Your task to perform on an android device: Go to Amazon Image 0: 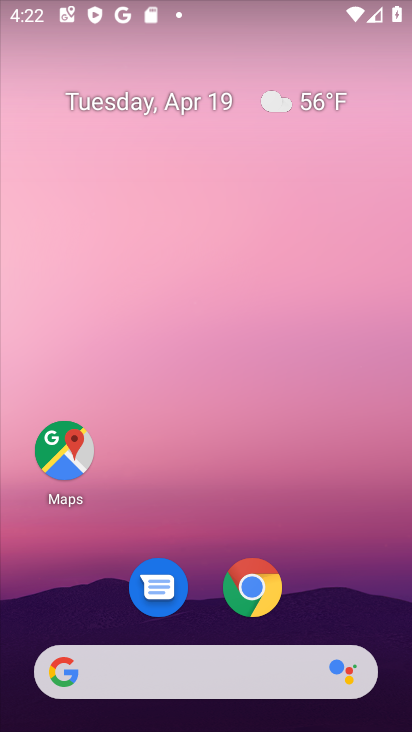
Step 0: click (251, 582)
Your task to perform on an android device: Go to Amazon Image 1: 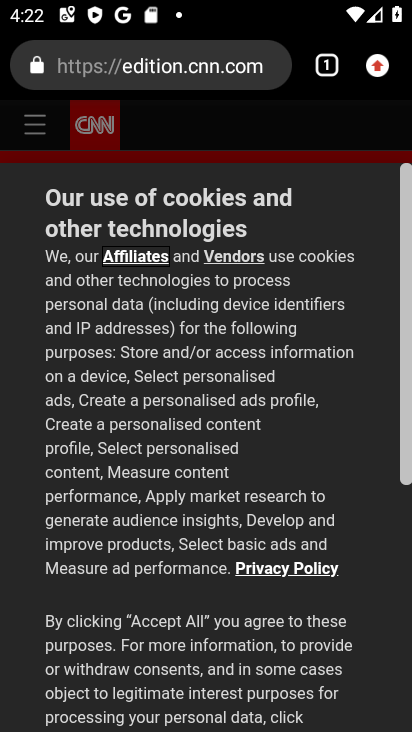
Step 1: click (327, 66)
Your task to perform on an android device: Go to Amazon Image 2: 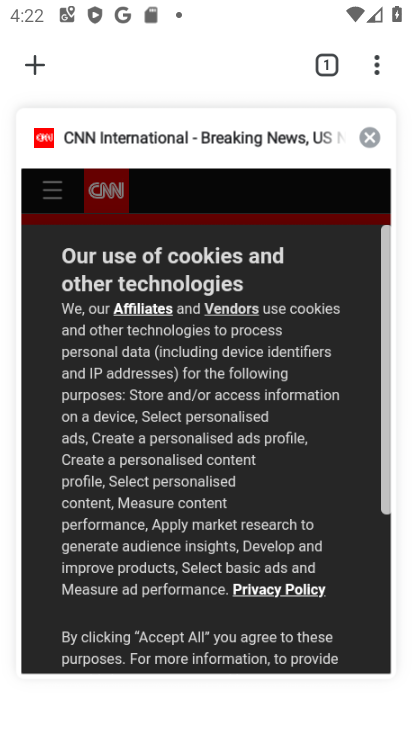
Step 2: click (35, 66)
Your task to perform on an android device: Go to Amazon Image 3: 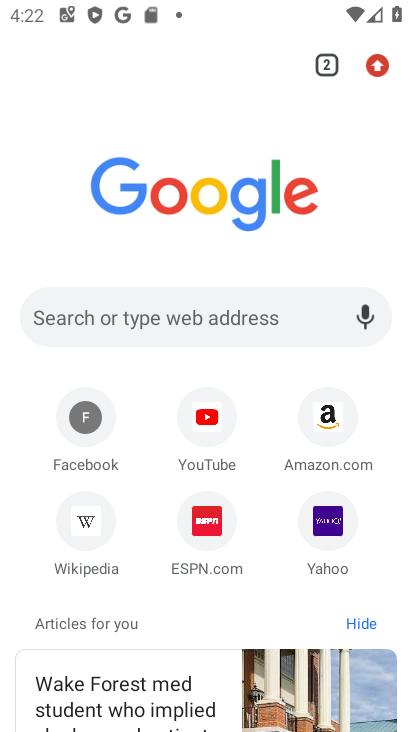
Step 3: click (328, 413)
Your task to perform on an android device: Go to Amazon Image 4: 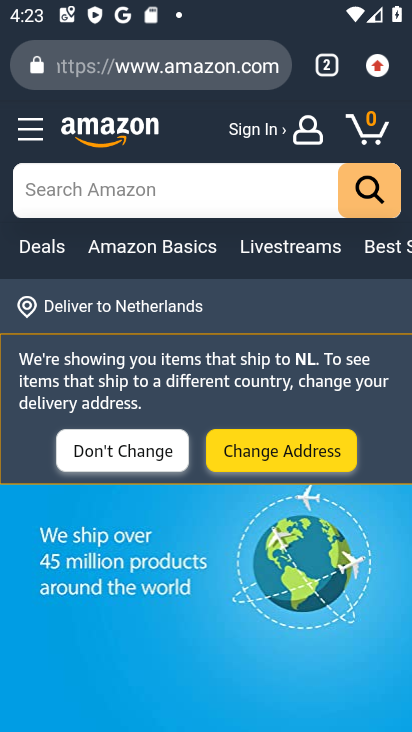
Step 4: task complete